Your task to perform on an android device: open chrome privacy settings Image 0: 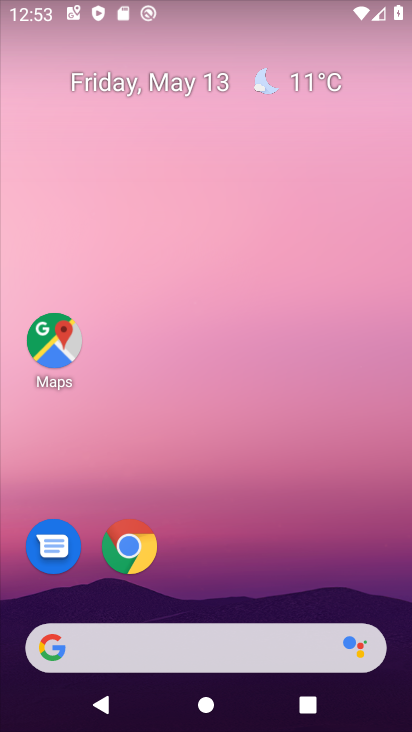
Step 0: drag from (221, 527) to (232, 198)
Your task to perform on an android device: open chrome privacy settings Image 1: 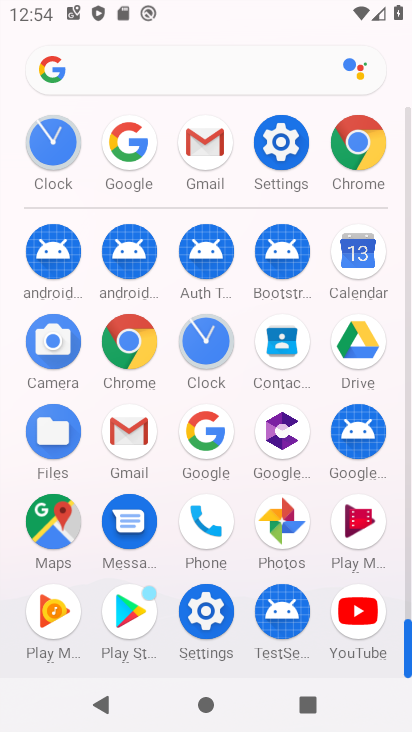
Step 1: click (357, 167)
Your task to perform on an android device: open chrome privacy settings Image 2: 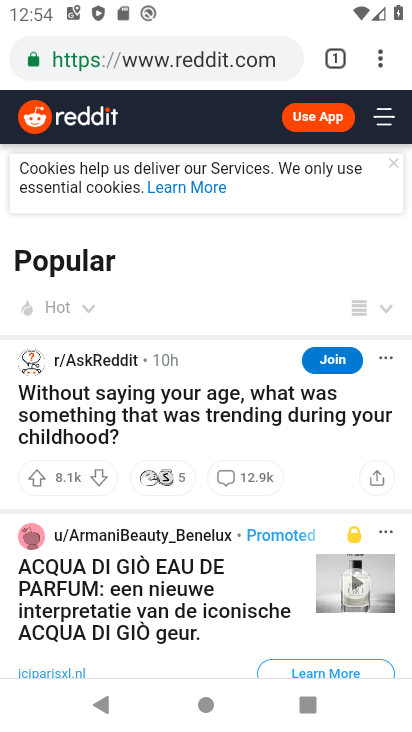
Step 2: click (385, 59)
Your task to perform on an android device: open chrome privacy settings Image 3: 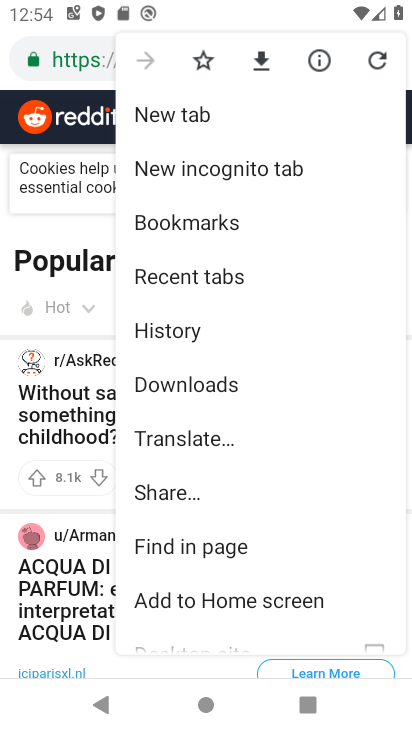
Step 3: drag from (203, 520) to (246, 88)
Your task to perform on an android device: open chrome privacy settings Image 4: 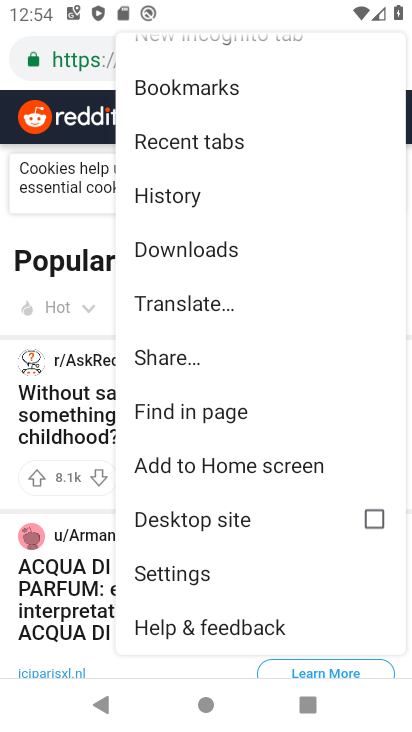
Step 4: click (207, 575)
Your task to perform on an android device: open chrome privacy settings Image 5: 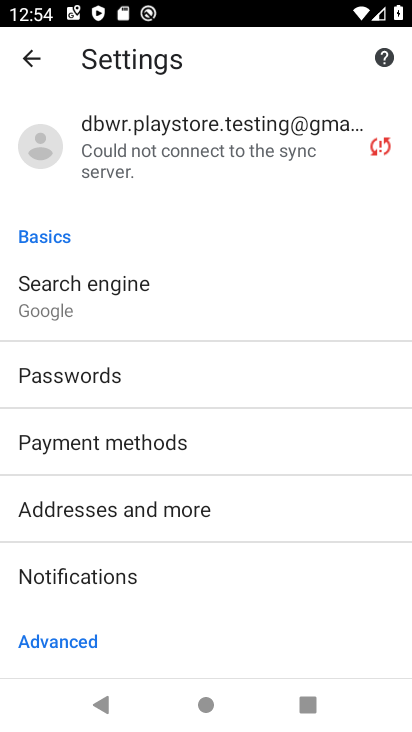
Step 5: drag from (125, 508) to (166, 236)
Your task to perform on an android device: open chrome privacy settings Image 6: 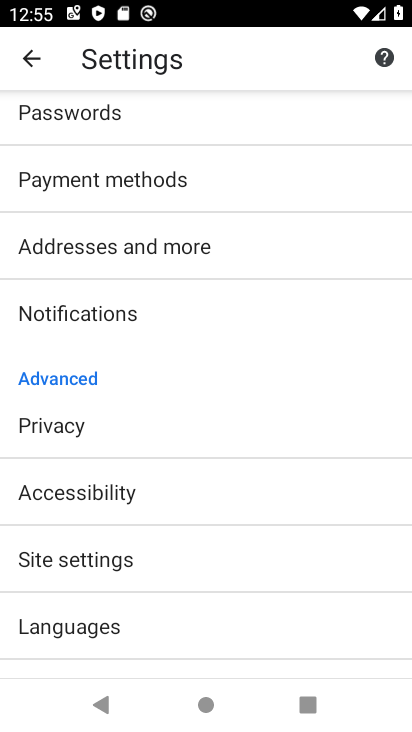
Step 6: click (91, 431)
Your task to perform on an android device: open chrome privacy settings Image 7: 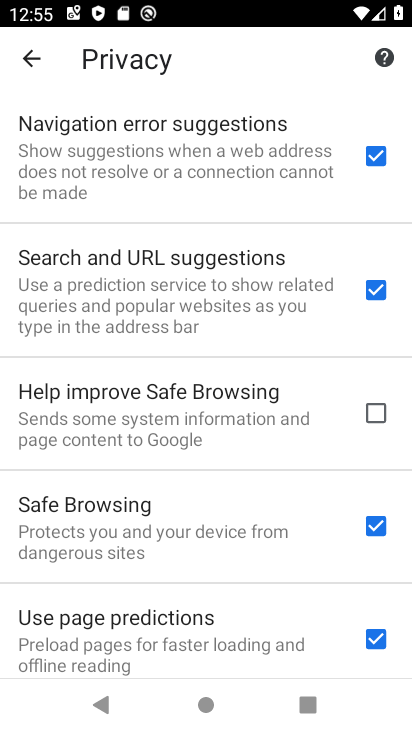
Step 7: task complete